Your task to perform on an android device: change keyboard looks Image 0: 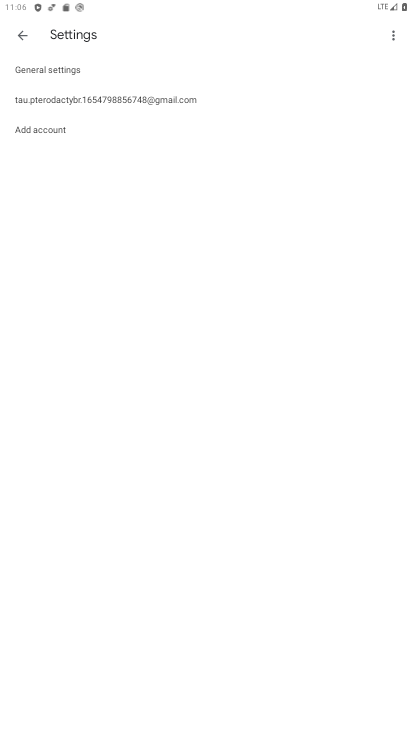
Step 0: press home button
Your task to perform on an android device: change keyboard looks Image 1: 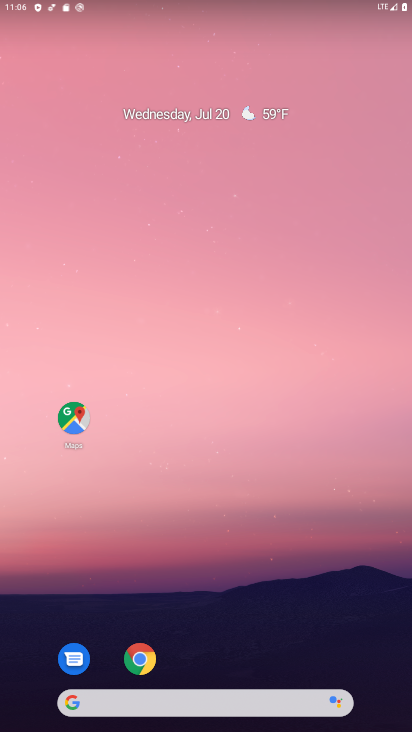
Step 1: drag from (225, 655) to (221, 112)
Your task to perform on an android device: change keyboard looks Image 2: 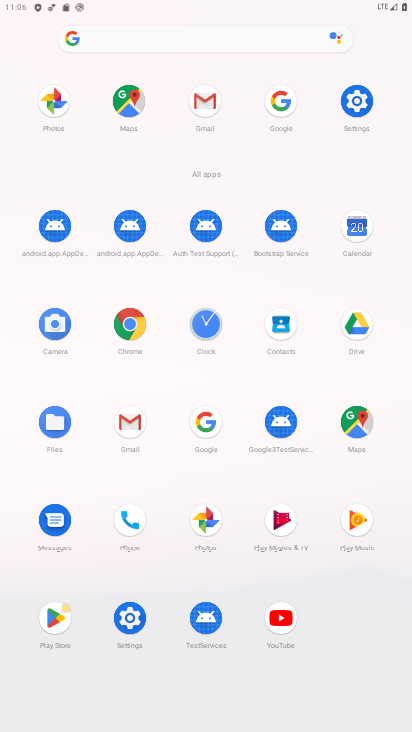
Step 2: click (360, 101)
Your task to perform on an android device: change keyboard looks Image 3: 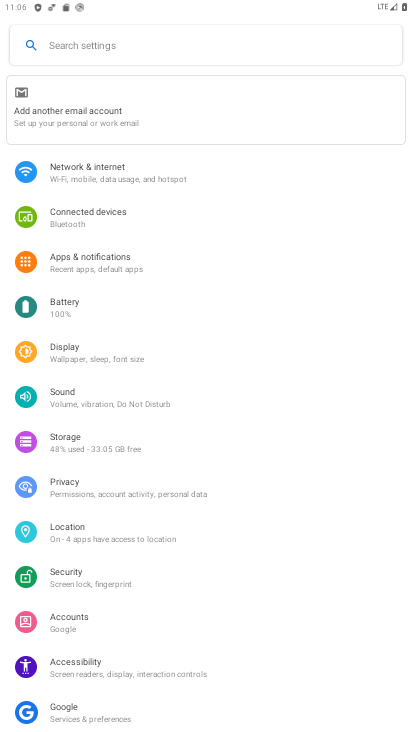
Step 3: drag from (86, 694) to (99, 386)
Your task to perform on an android device: change keyboard looks Image 4: 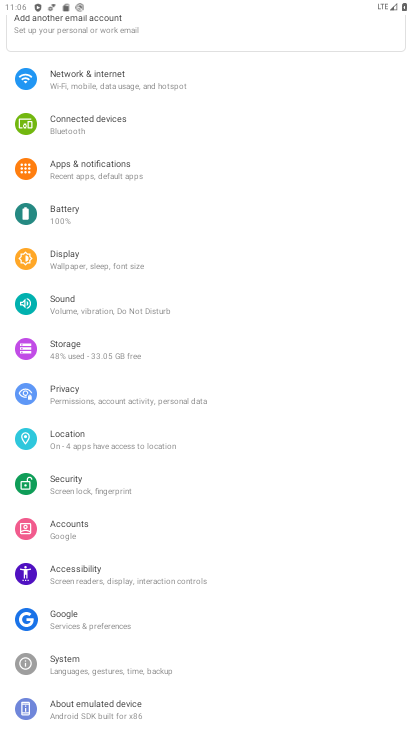
Step 4: click (68, 669)
Your task to perform on an android device: change keyboard looks Image 5: 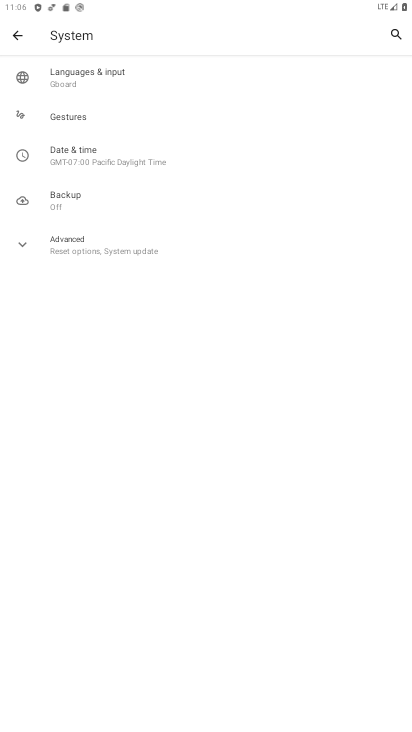
Step 5: click (77, 69)
Your task to perform on an android device: change keyboard looks Image 6: 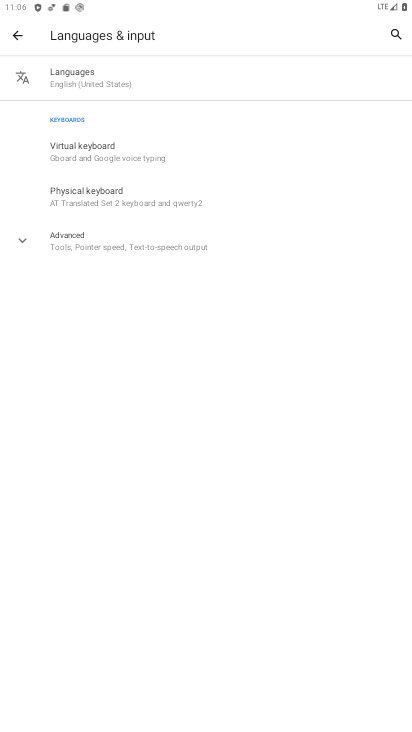
Step 6: click (83, 144)
Your task to perform on an android device: change keyboard looks Image 7: 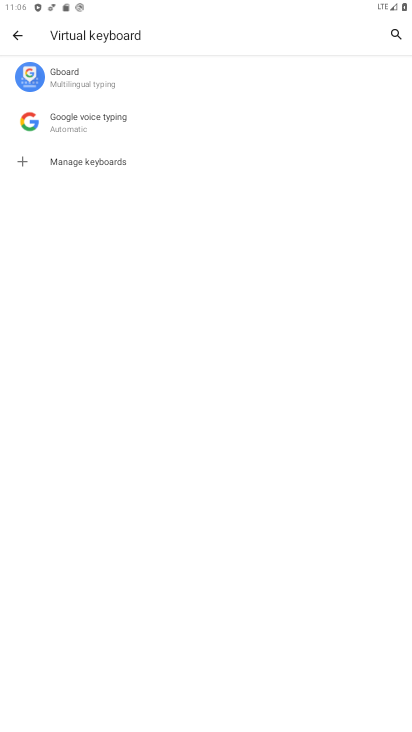
Step 7: click (68, 77)
Your task to perform on an android device: change keyboard looks Image 8: 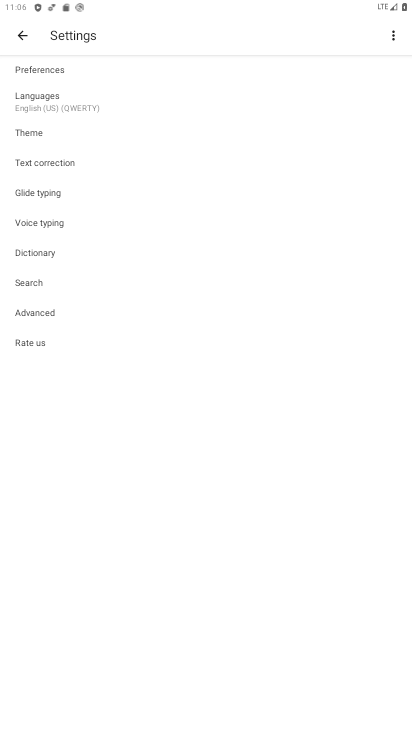
Step 8: click (30, 132)
Your task to perform on an android device: change keyboard looks Image 9: 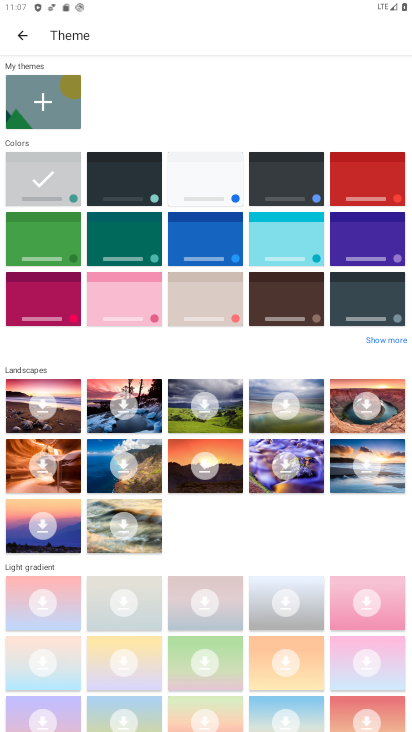
Step 9: click (130, 188)
Your task to perform on an android device: change keyboard looks Image 10: 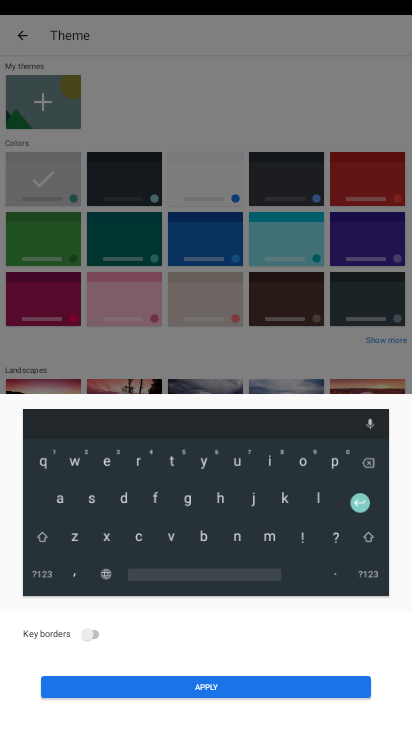
Step 10: click (98, 633)
Your task to perform on an android device: change keyboard looks Image 11: 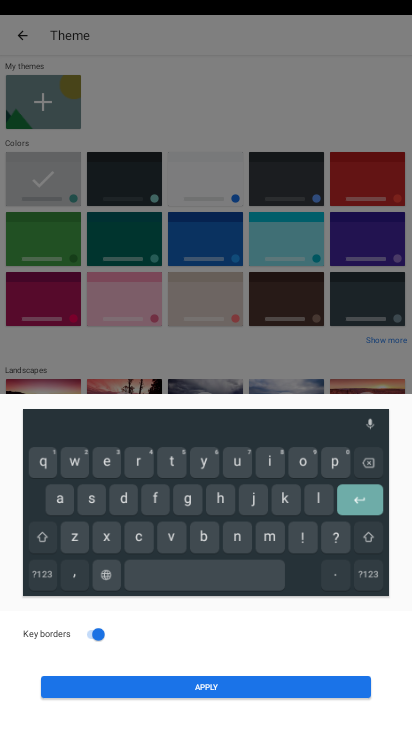
Step 11: click (172, 686)
Your task to perform on an android device: change keyboard looks Image 12: 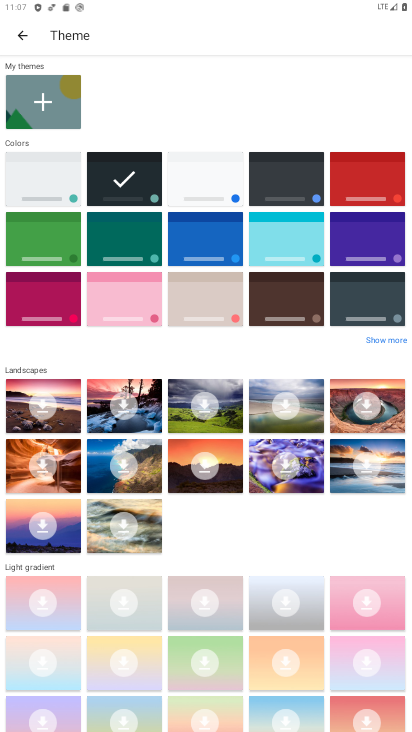
Step 12: task complete